Your task to perform on an android device: Go to Maps Image 0: 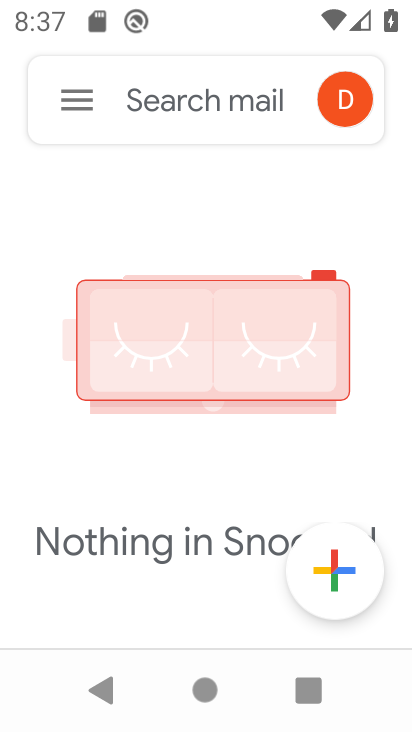
Step 0: press home button
Your task to perform on an android device: Go to Maps Image 1: 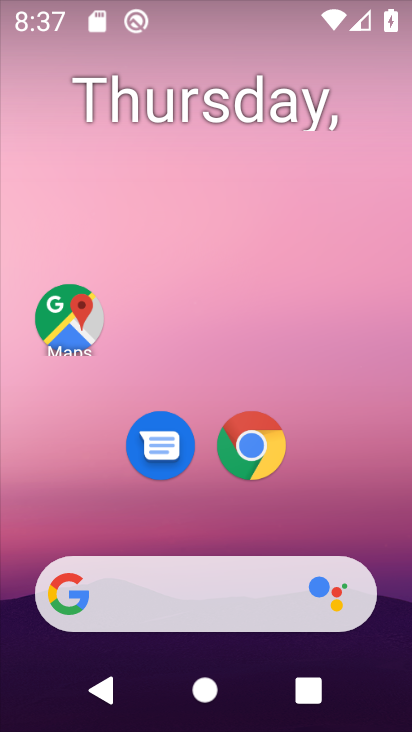
Step 1: click (61, 331)
Your task to perform on an android device: Go to Maps Image 2: 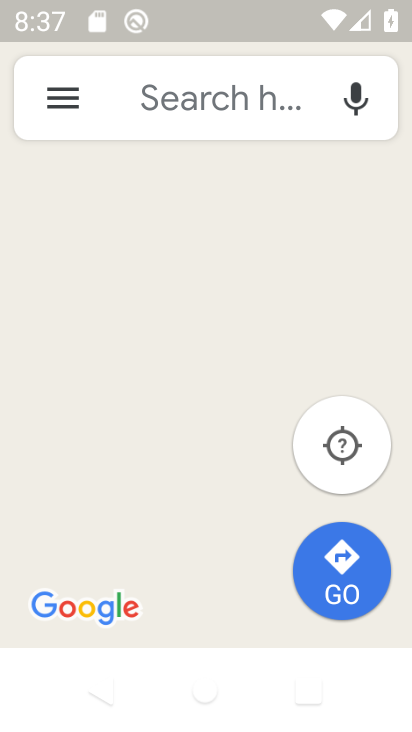
Step 2: task complete